Your task to perform on an android device: Search for the best deal on a 3d printer on aliexpress Image 0: 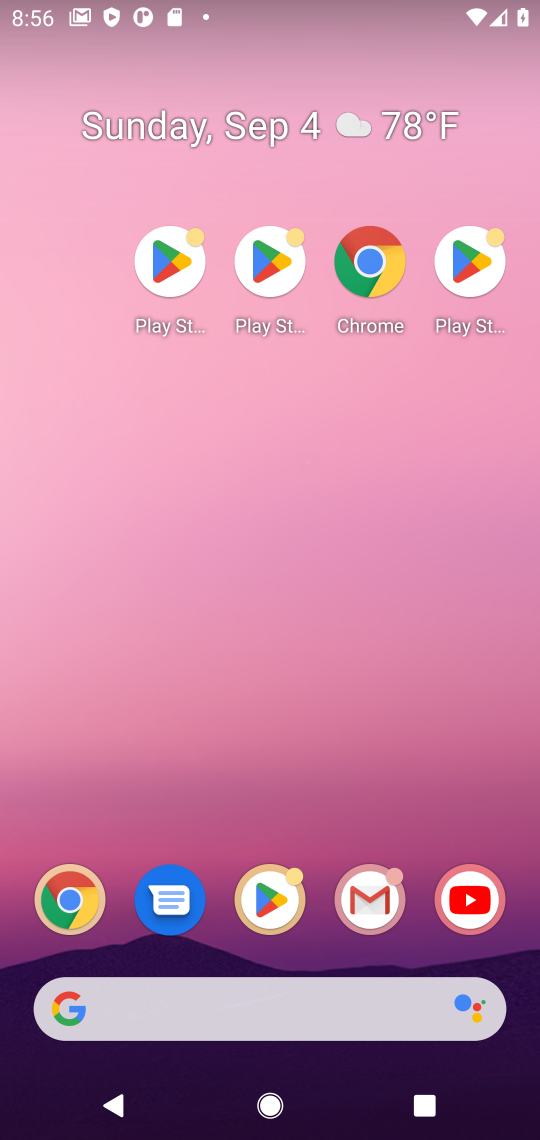
Step 0: drag from (323, 969) to (289, 19)
Your task to perform on an android device: Search for the best deal on a 3d printer on aliexpress Image 1: 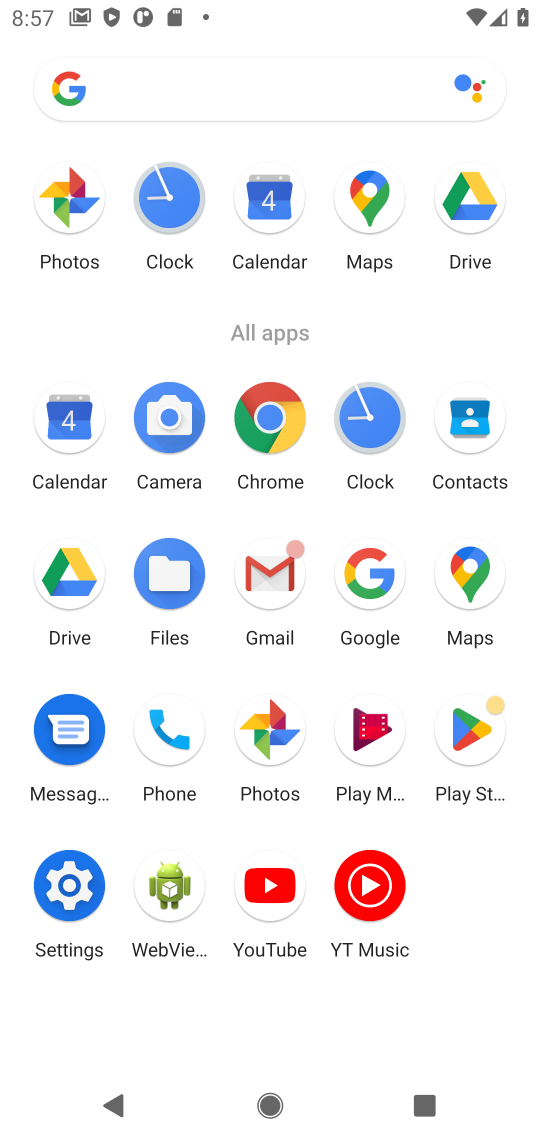
Step 1: click (250, 426)
Your task to perform on an android device: Search for the best deal on a 3d printer on aliexpress Image 2: 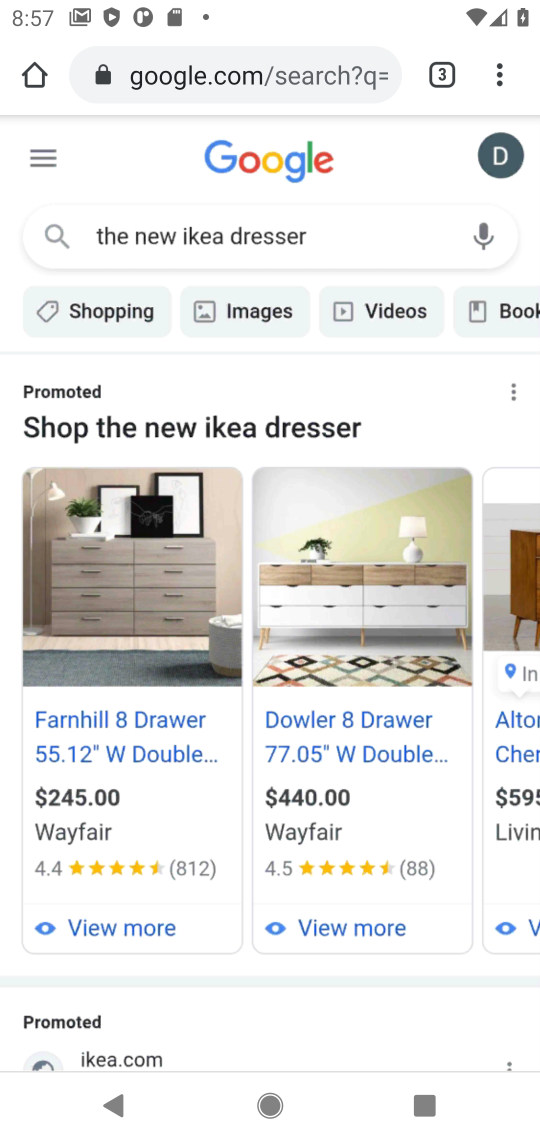
Step 2: click (438, 91)
Your task to perform on an android device: Search for the best deal on a 3d printer on aliexpress Image 3: 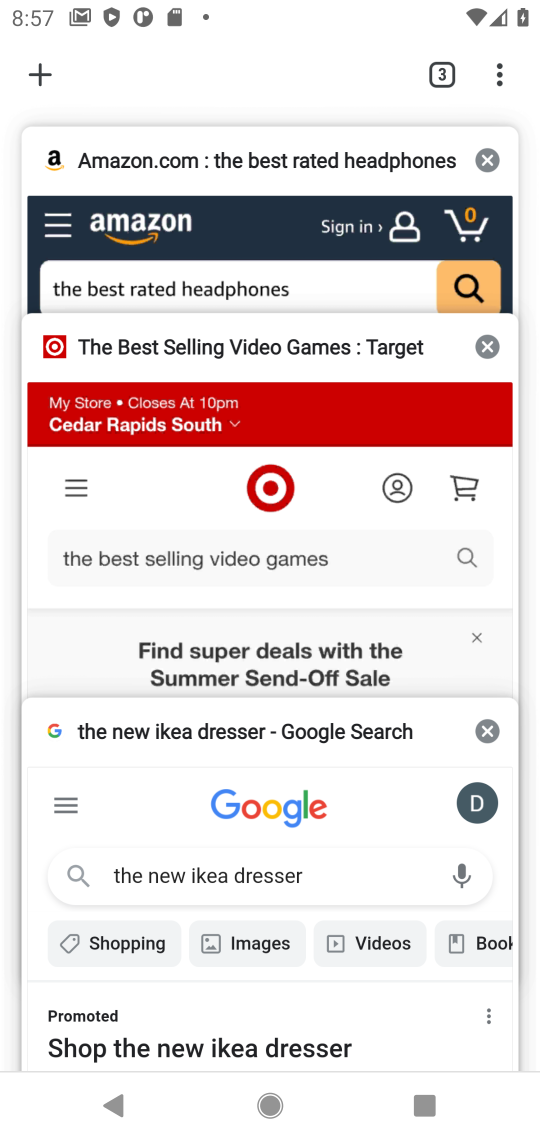
Step 3: click (39, 72)
Your task to perform on an android device: Search for the best deal on a 3d printer on aliexpress Image 4: 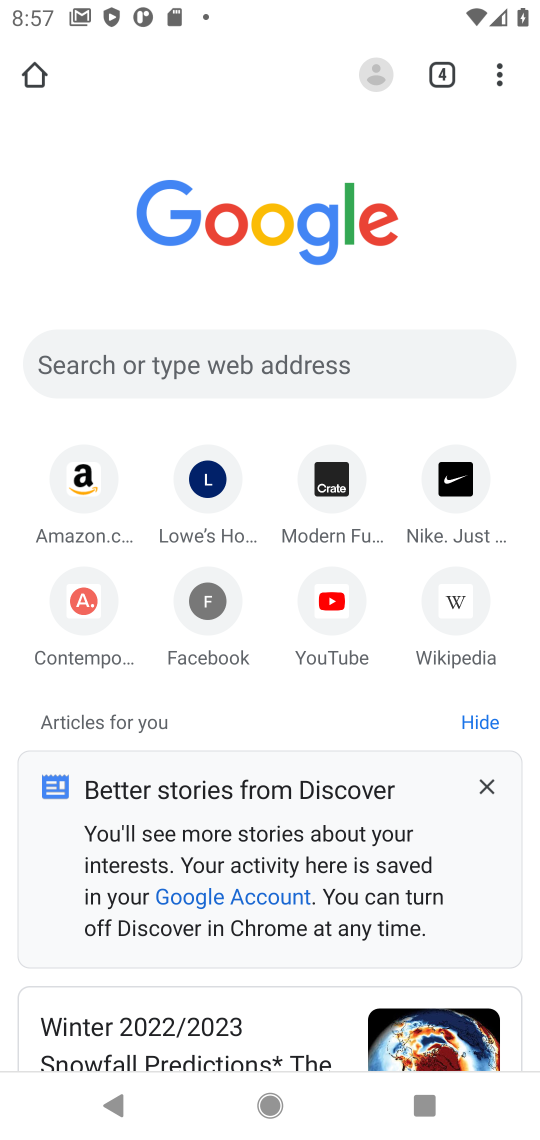
Step 4: click (200, 389)
Your task to perform on an android device: Search for the best deal on a 3d printer on aliexpress Image 5: 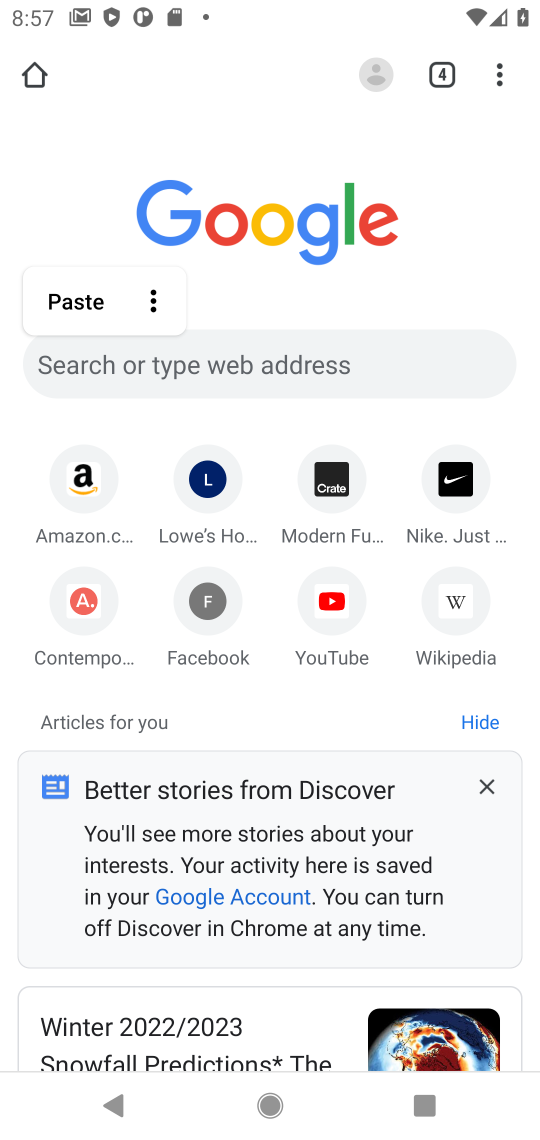
Step 5: click (184, 356)
Your task to perform on an android device: Search for the best deal on a 3d printer on aliexpress Image 6: 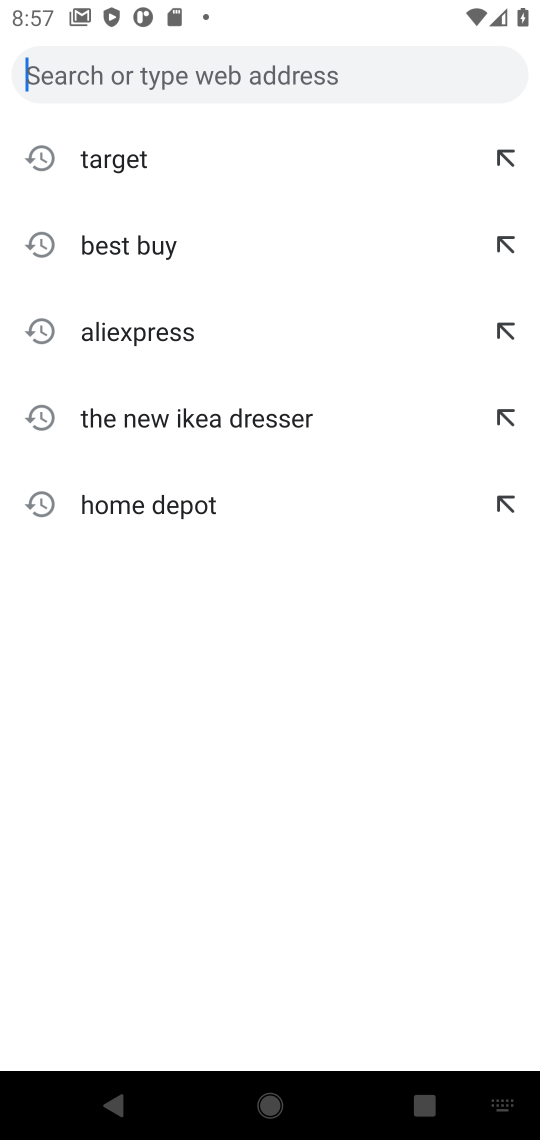
Step 6: click (196, 350)
Your task to perform on an android device: Search for the best deal on a 3d printer on aliexpress Image 7: 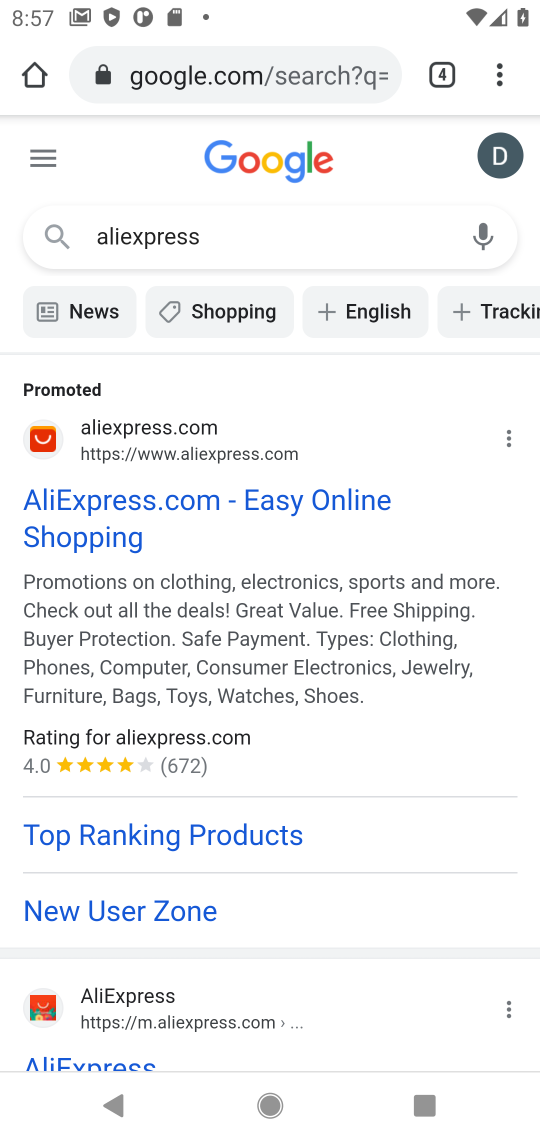
Step 7: click (93, 498)
Your task to perform on an android device: Search for the best deal on a 3d printer on aliexpress Image 8: 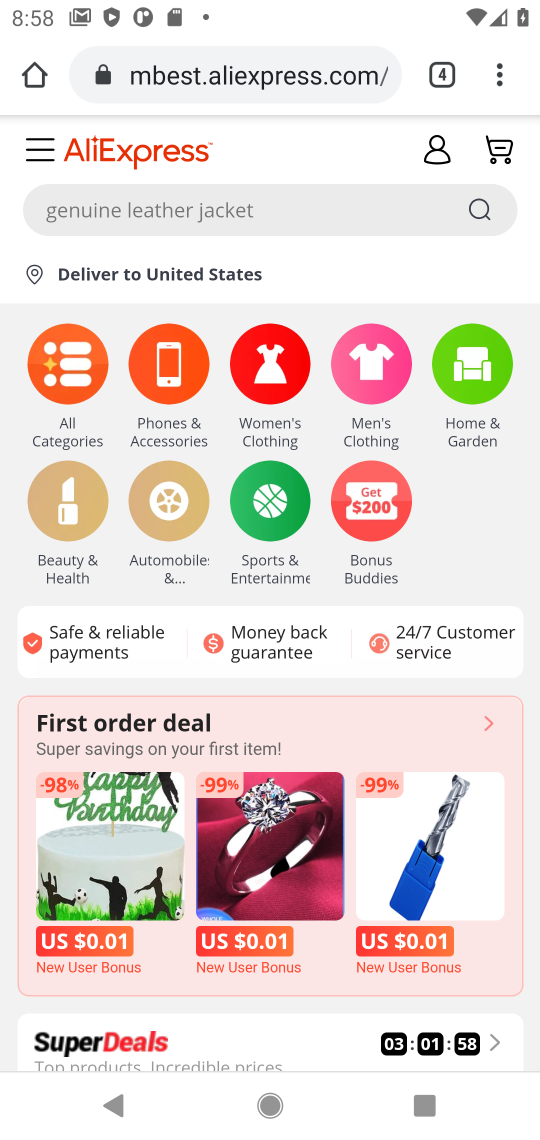
Step 8: click (100, 211)
Your task to perform on an android device: Search for the best deal on a 3d printer on aliexpress Image 9: 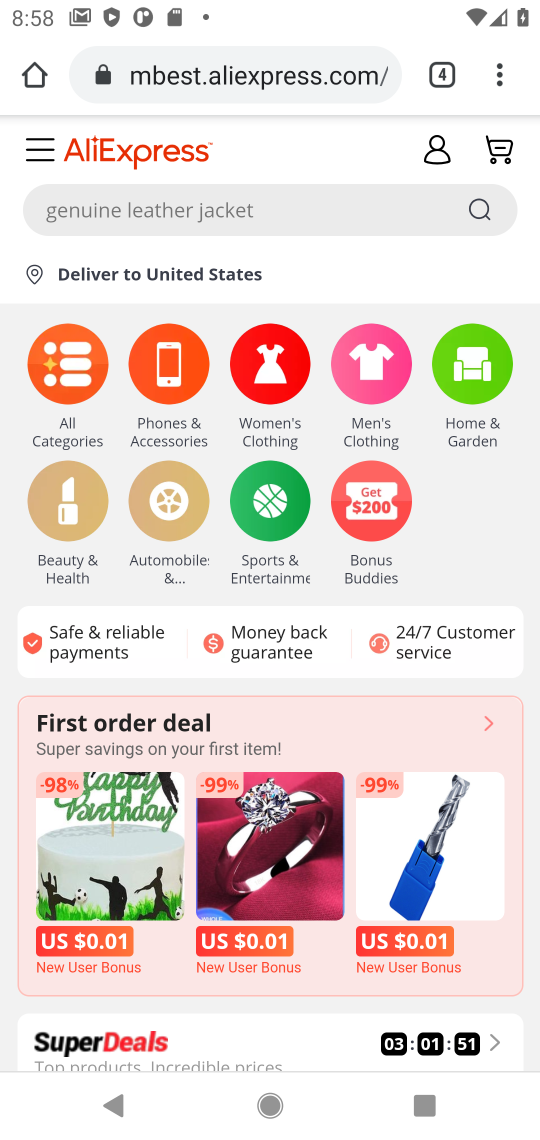
Step 9: click (198, 232)
Your task to perform on an android device: Search for the best deal on a 3d printer on aliexpress Image 10: 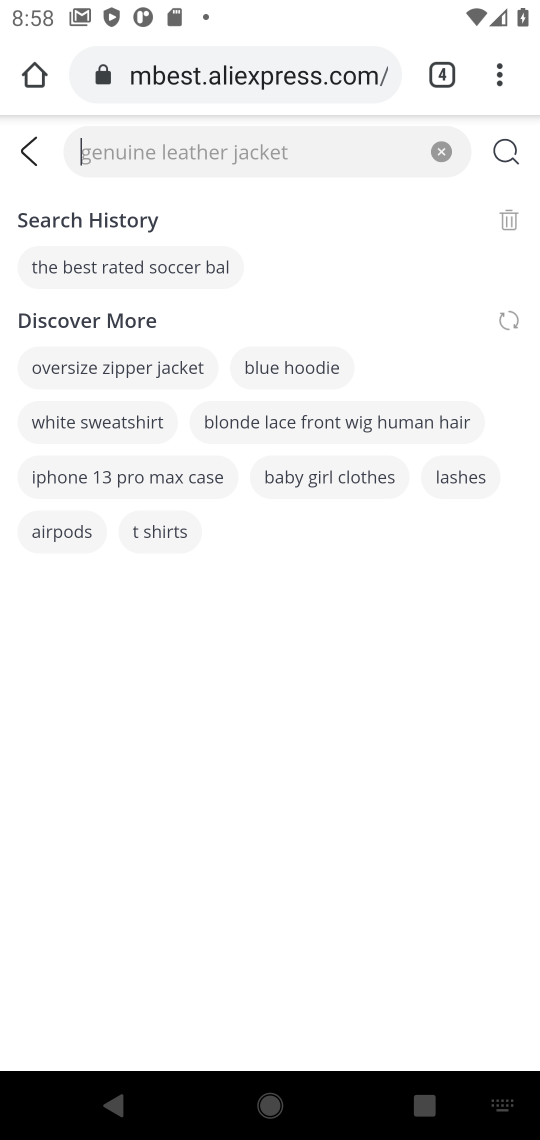
Step 10: type "the best deal on a 3d printer"
Your task to perform on an android device: Search for the best deal on a 3d printer on aliexpress Image 11: 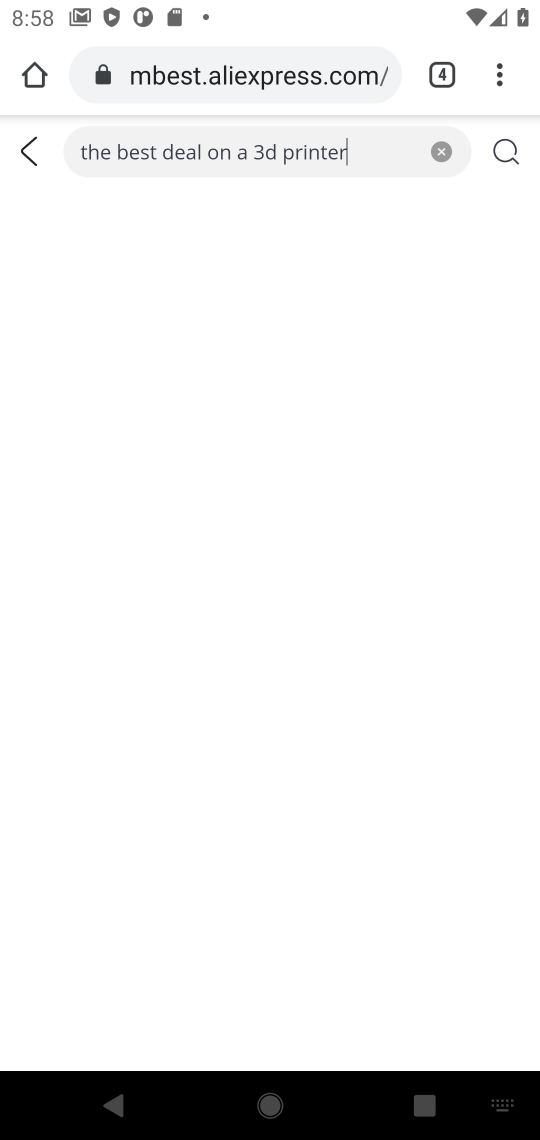
Step 11: type ""
Your task to perform on an android device: Search for the best deal on a 3d printer on aliexpress Image 12: 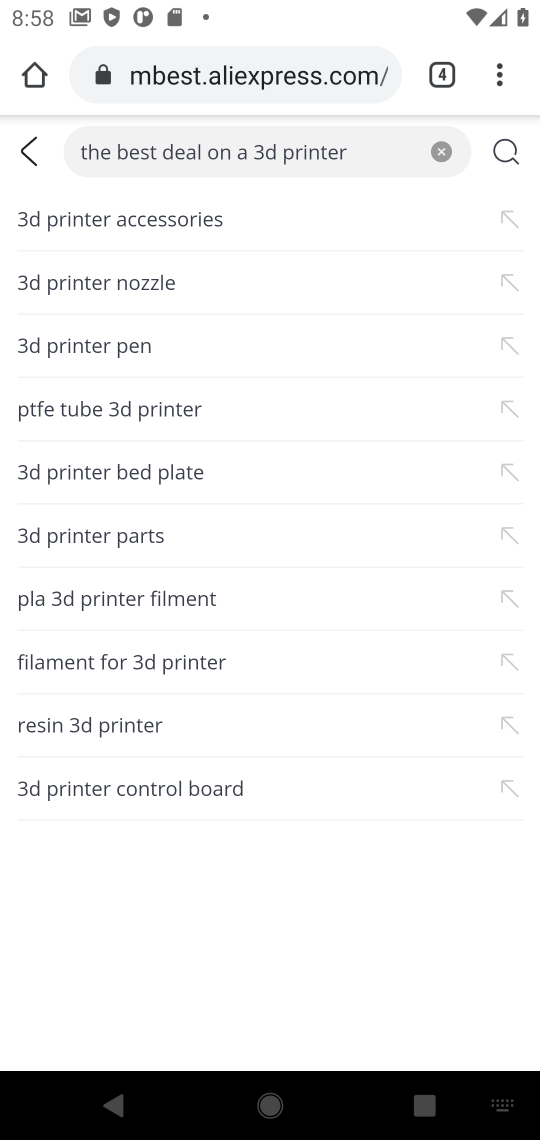
Step 12: click (61, 207)
Your task to perform on an android device: Search for the best deal on a 3d printer on aliexpress Image 13: 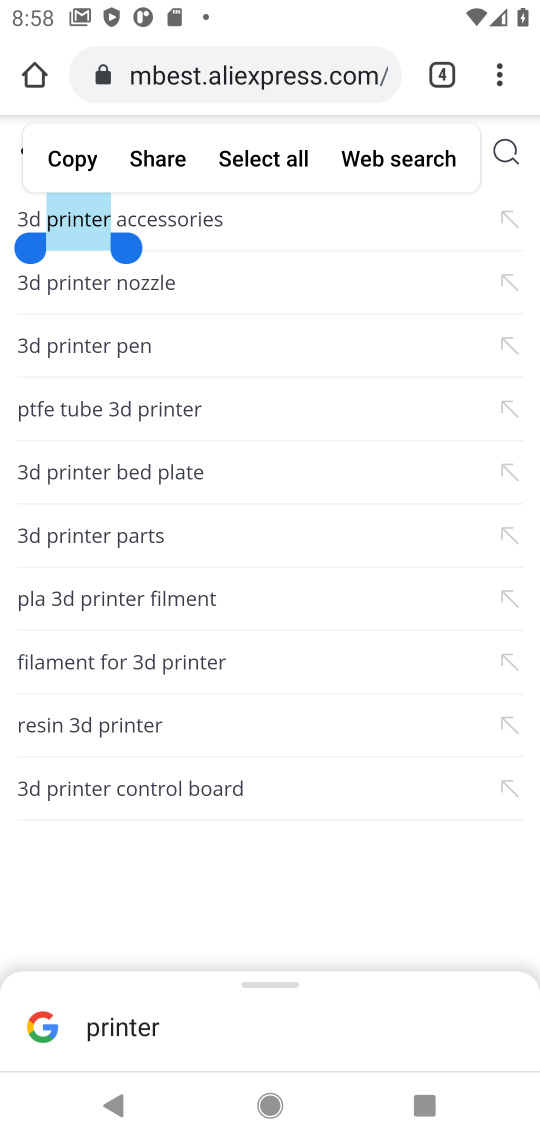
Step 13: click (506, 155)
Your task to perform on an android device: Search for the best deal on a 3d printer on aliexpress Image 14: 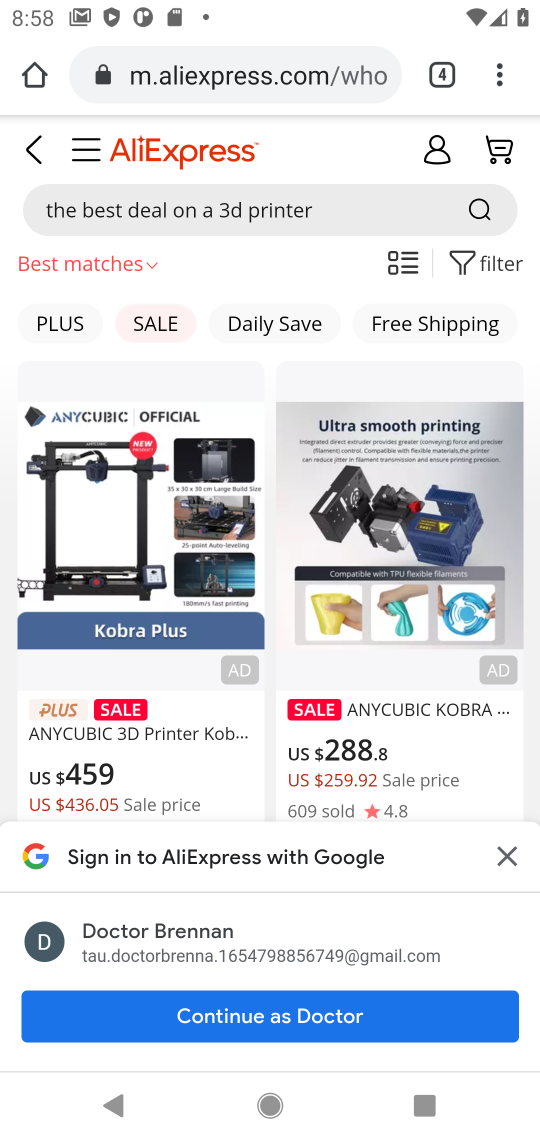
Step 14: task complete